Your task to perform on an android device: Open Google Maps Image 0: 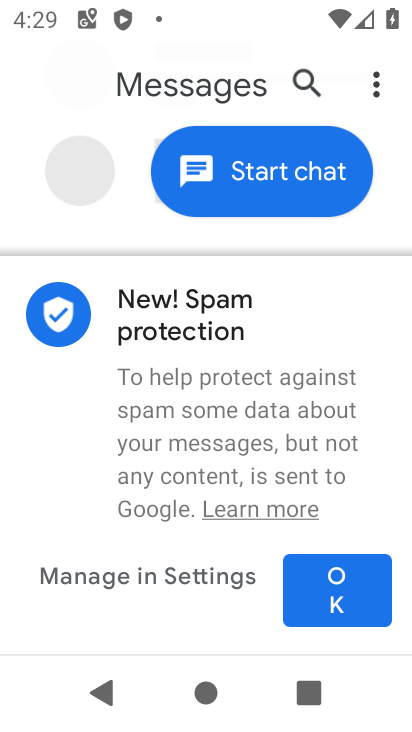
Step 0: press home button
Your task to perform on an android device: Open Google Maps Image 1: 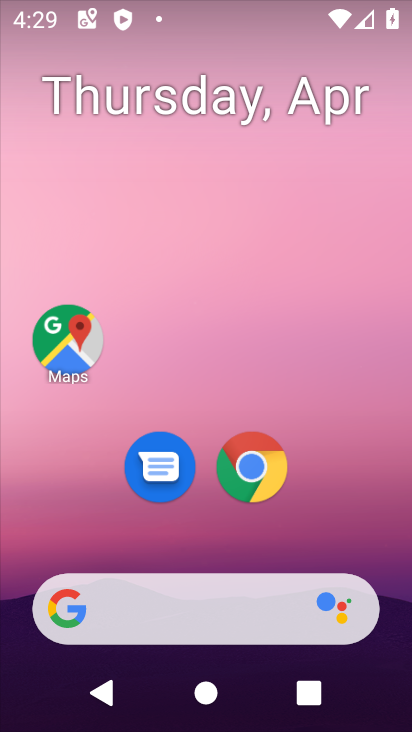
Step 1: drag from (173, 543) to (188, 234)
Your task to perform on an android device: Open Google Maps Image 2: 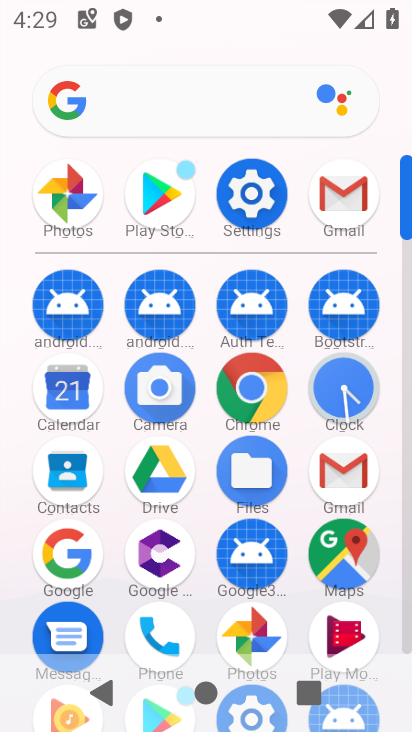
Step 2: click (336, 549)
Your task to perform on an android device: Open Google Maps Image 3: 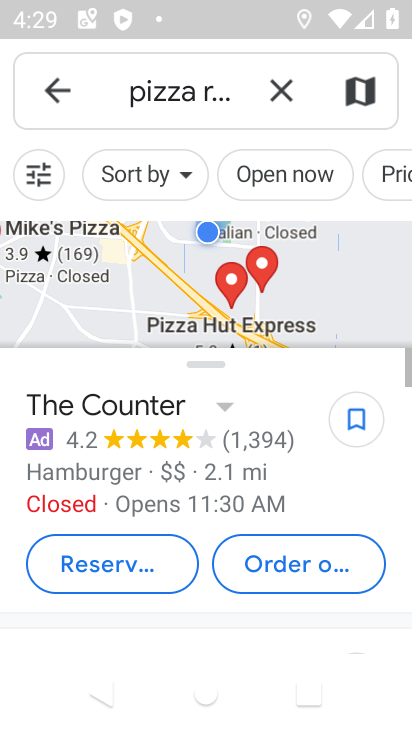
Step 3: task complete